Your task to perform on an android device: Open maps Image 0: 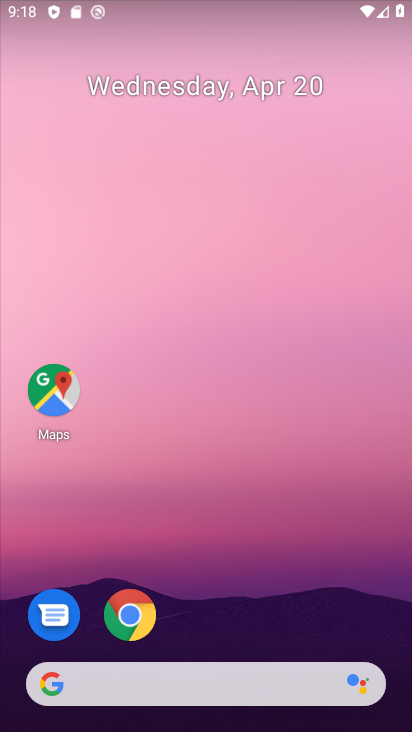
Step 0: click (55, 391)
Your task to perform on an android device: Open maps Image 1: 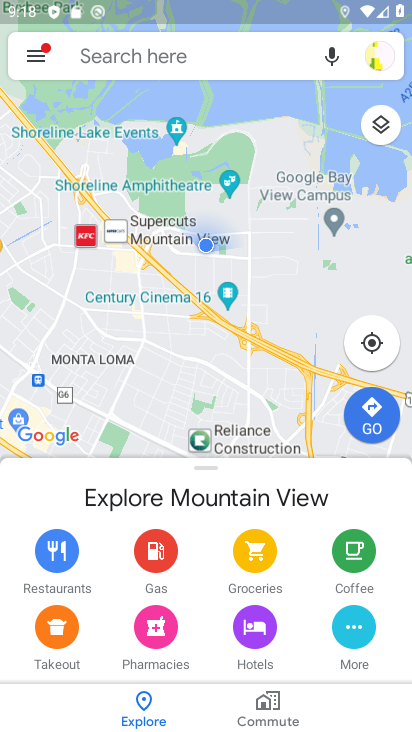
Step 1: task complete